Your task to perform on an android device: change the clock display to digital Image 0: 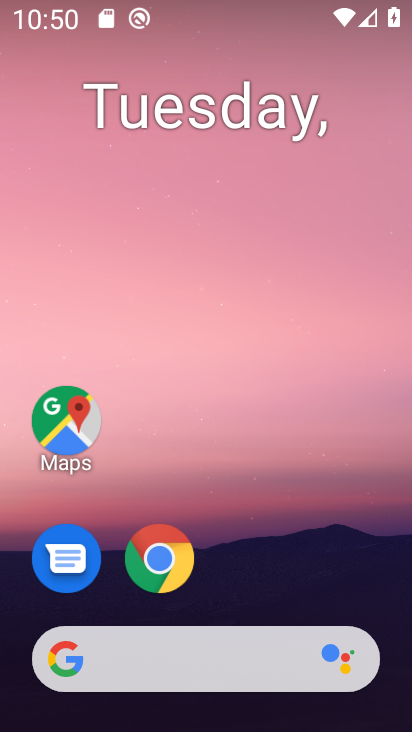
Step 0: drag from (370, 572) to (355, 102)
Your task to perform on an android device: change the clock display to digital Image 1: 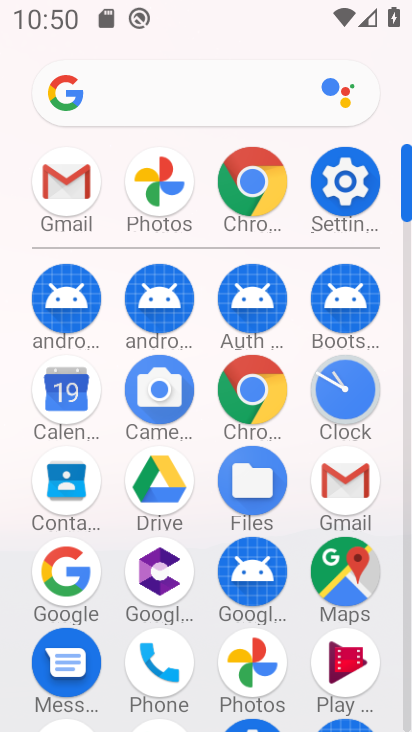
Step 1: click (350, 394)
Your task to perform on an android device: change the clock display to digital Image 2: 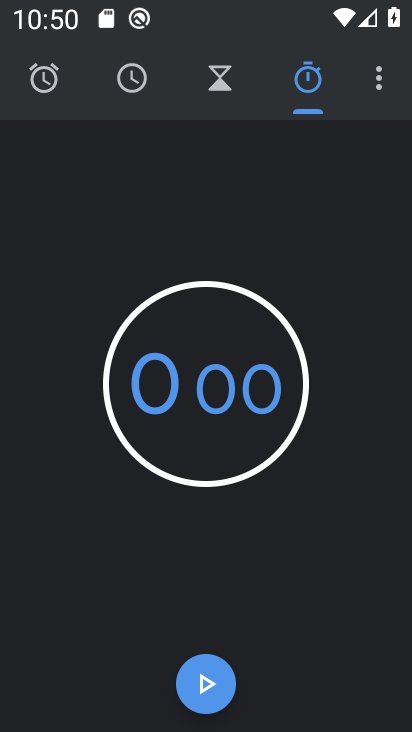
Step 2: click (379, 83)
Your task to perform on an android device: change the clock display to digital Image 3: 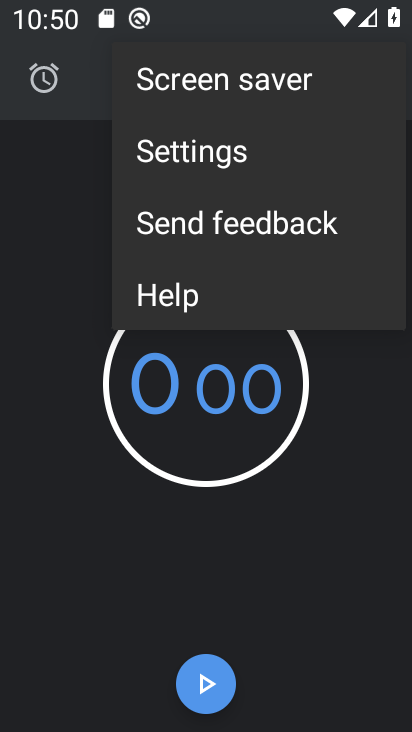
Step 3: click (240, 153)
Your task to perform on an android device: change the clock display to digital Image 4: 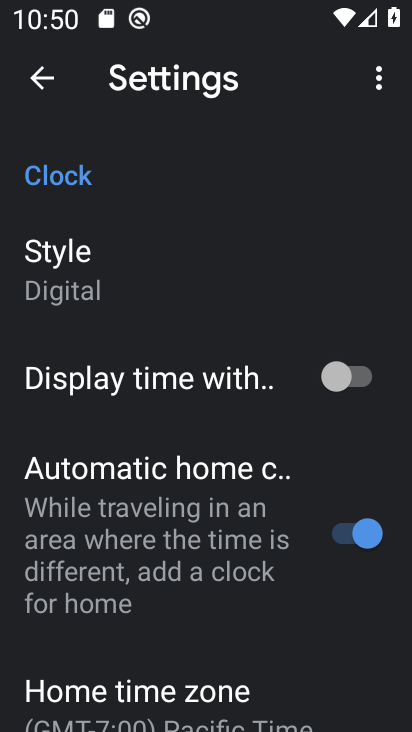
Step 4: task complete